Your task to perform on an android device: change the clock display to digital Image 0: 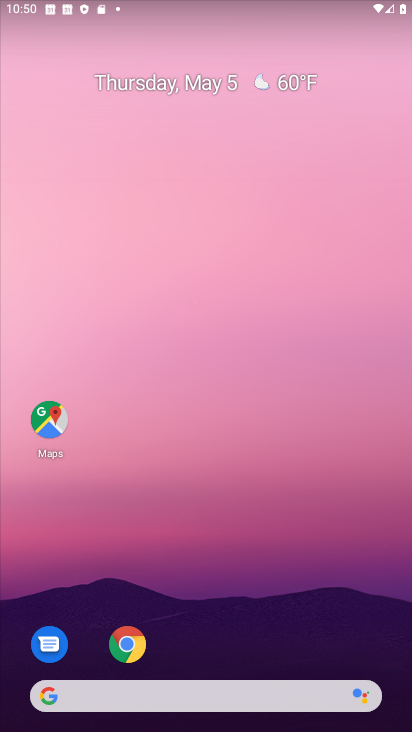
Step 0: drag from (216, 637) to (268, 245)
Your task to perform on an android device: change the clock display to digital Image 1: 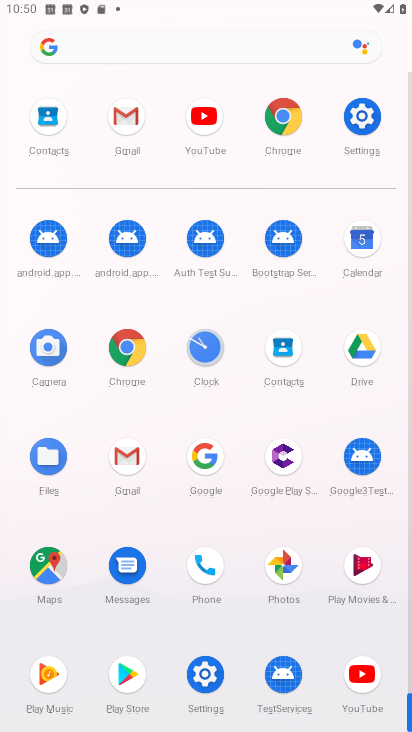
Step 1: drag from (159, 630) to (160, 277)
Your task to perform on an android device: change the clock display to digital Image 2: 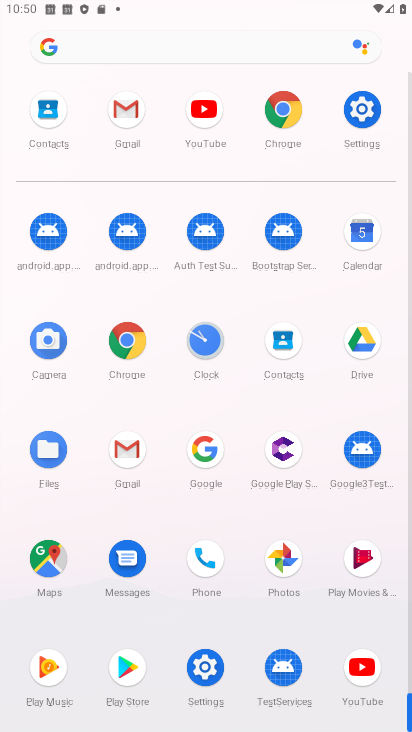
Step 2: click (203, 333)
Your task to perform on an android device: change the clock display to digital Image 3: 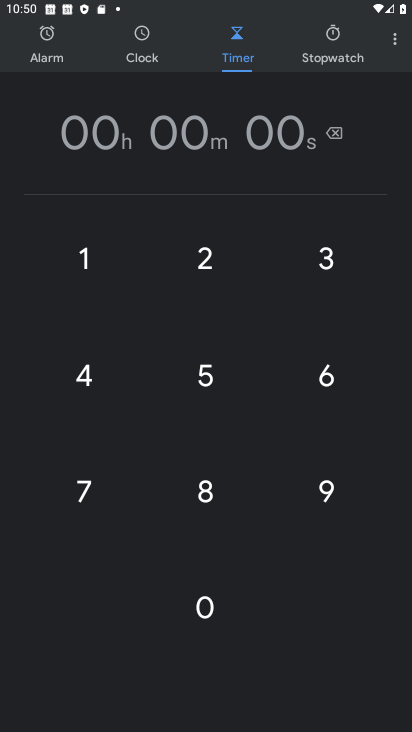
Step 3: click (386, 44)
Your task to perform on an android device: change the clock display to digital Image 4: 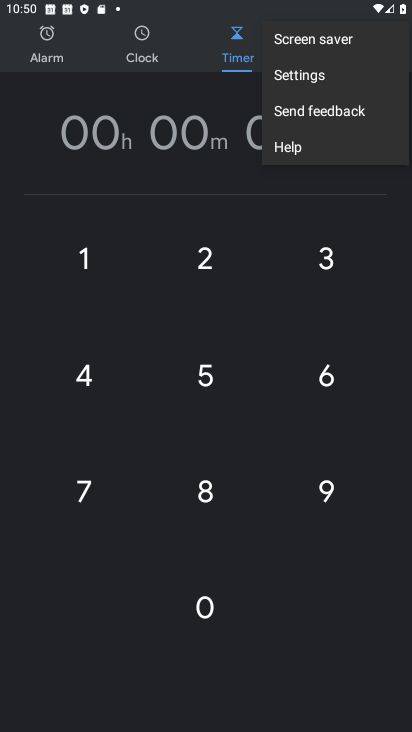
Step 4: click (309, 77)
Your task to perform on an android device: change the clock display to digital Image 5: 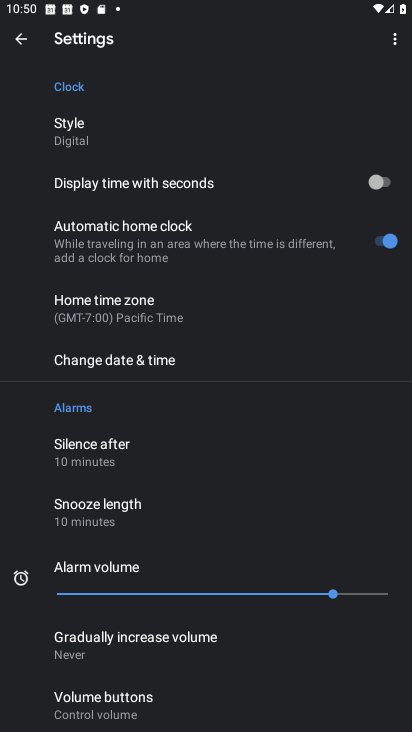
Step 5: drag from (143, 514) to (228, 161)
Your task to perform on an android device: change the clock display to digital Image 6: 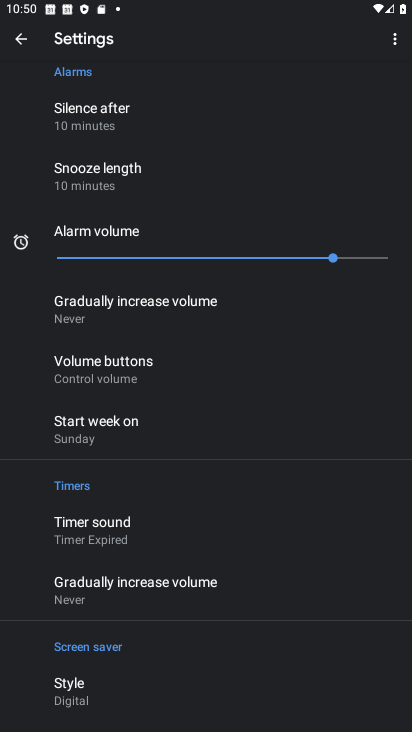
Step 6: drag from (195, 169) to (256, 655)
Your task to perform on an android device: change the clock display to digital Image 7: 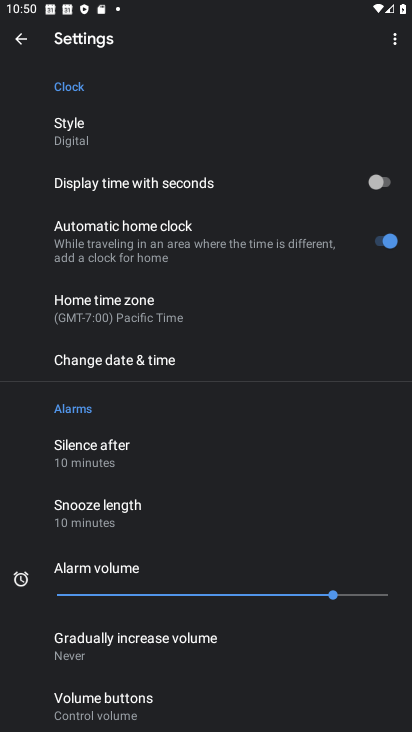
Step 7: drag from (245, 318) to (384, 724)
Your task to perform on an android device: change the clock display to digital Image 8: 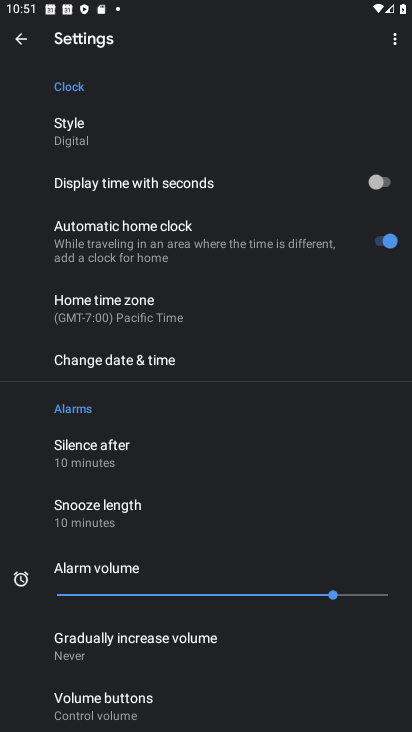
Step 8: drag from (165, 84) to (248, 613)
Your task to perform on an android device: change the clock display to digital Image 9: 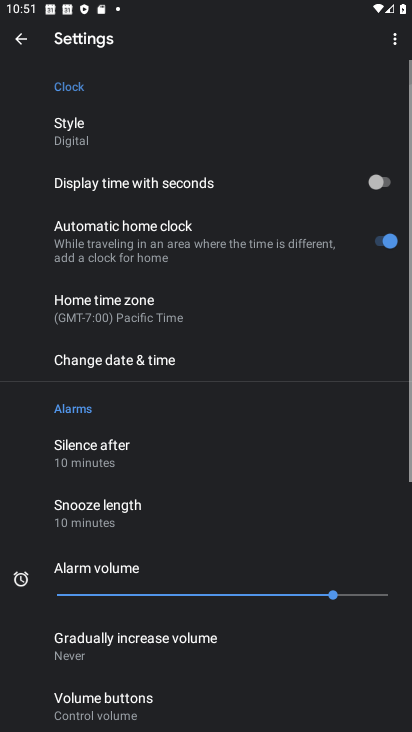
Step 9: drag from (261, 599) to (303, 135)
Your task to perform on an android device: change the clock display to digital Image 10: 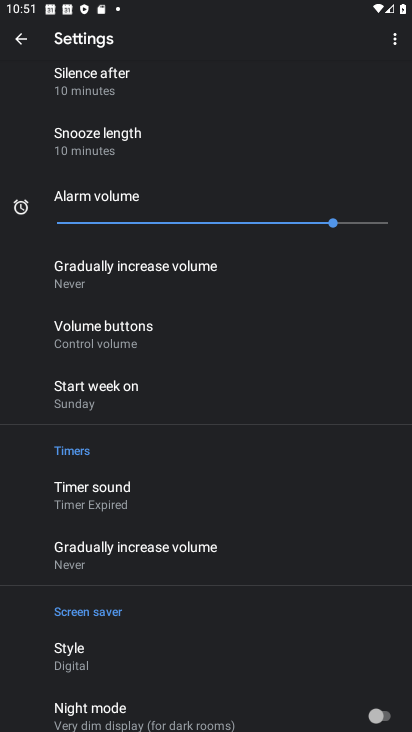
Step 10: drag from (197, 596) to (252, 66)
Your task to perform on an android device: change the clock display to digital Image 11: 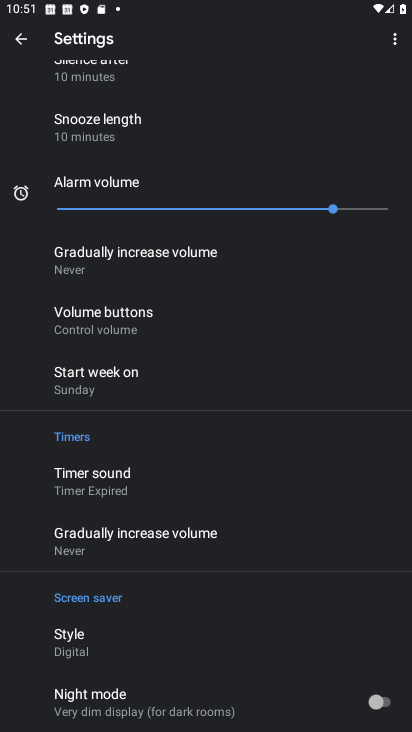
Step 11: drag from (182, 264) to (253, 715)
Your task to perform on an android device: change the clock display to digital Image 12: 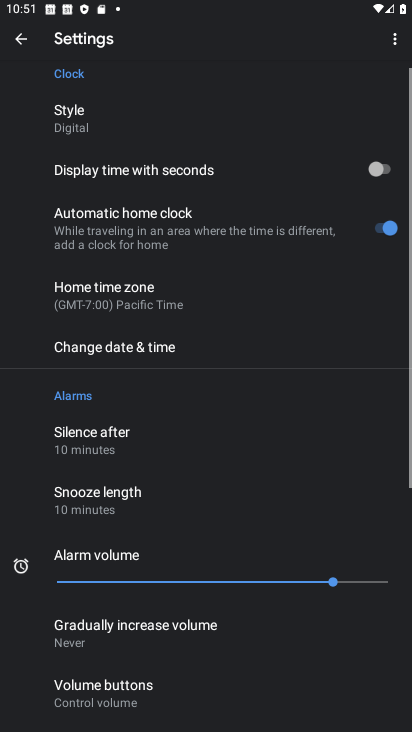
Step 12: drag from (184, 251) to (250, 599)
Your task to perform on an android device: change the clock display to digital Image 13: 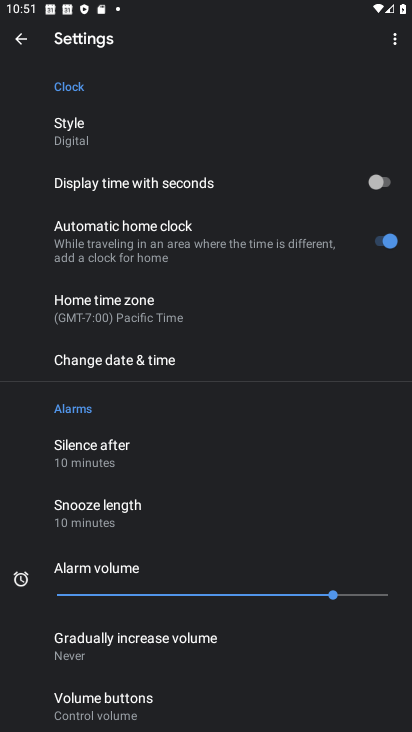
Step 13: click (98, 122)
Your task to perform on an android device: change the clock display to digital Image 14: 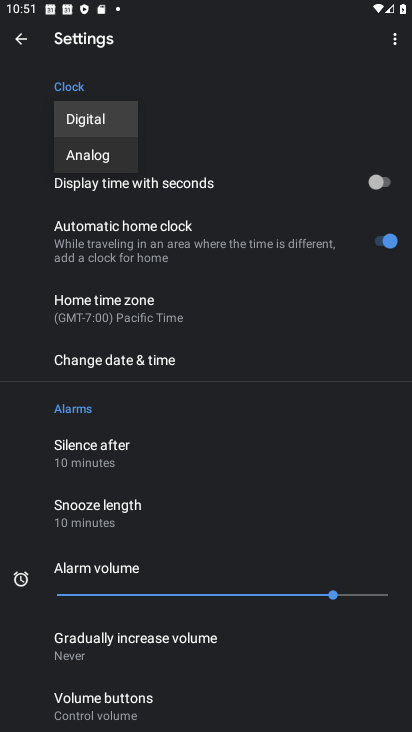
Step 14: click (95, 123)
Your task to perform on an android device: change the clock display to digital Image 15: 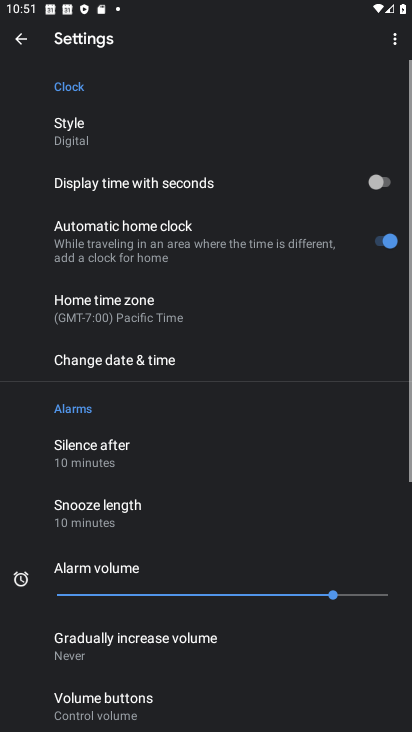
Step 15: task complete